Your task to perform on an android device: Show the shopping cart on newegg. Add "logitech g pro" to the cart on newegg Image 0: 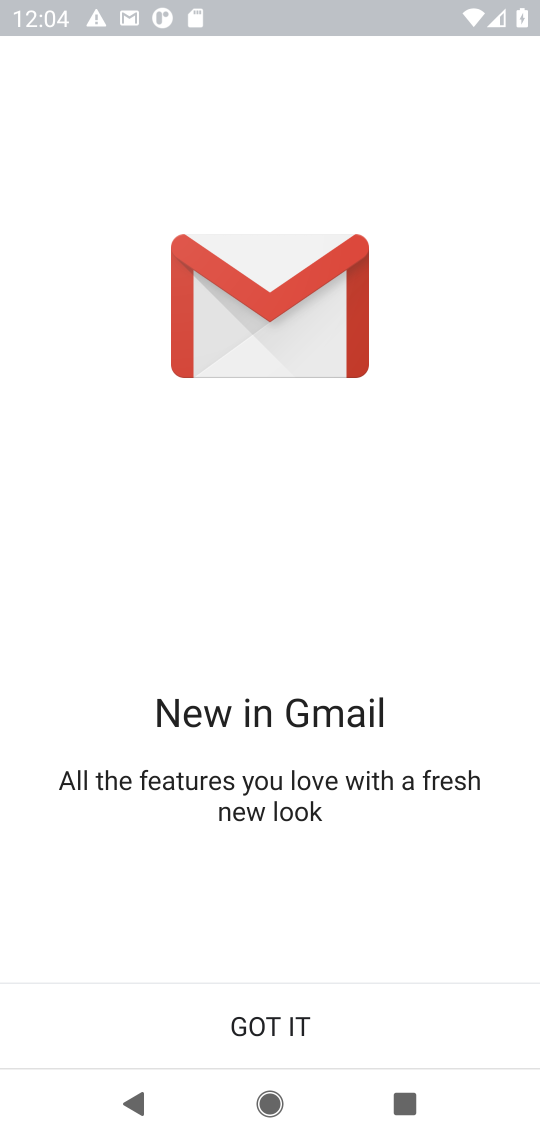
Step 0: press home button
Your task to perform on an android device: Show the shopping cart on newegg. Add "logitech g pro" to the cart on newegg Image 1: 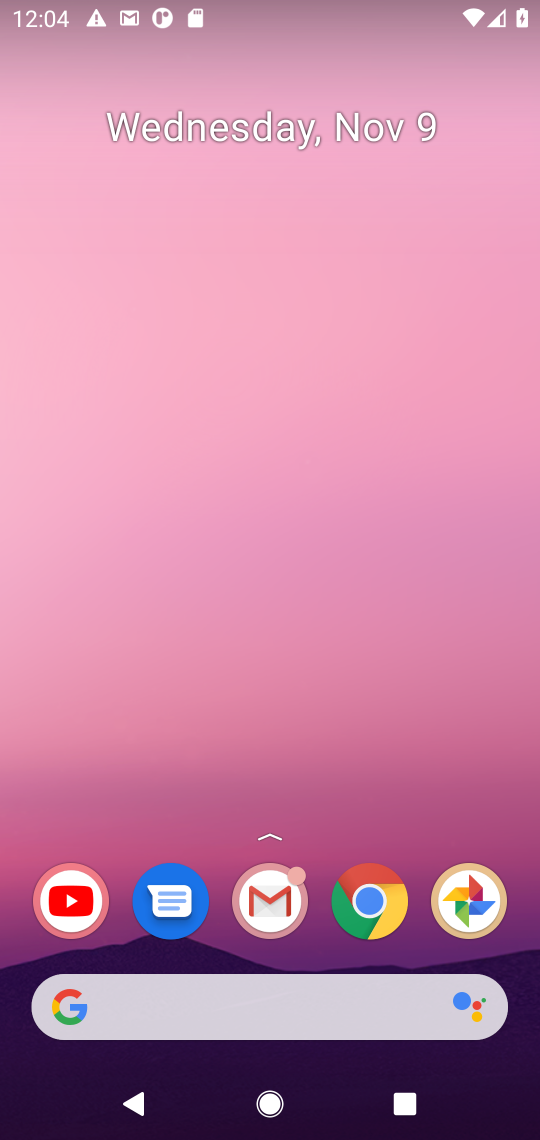
Step 1: click (378, 891)
Your task to perform on an android device: Show the shopping cart on newegg. Add "logitech g pro" to the cart on newegg Image 2: 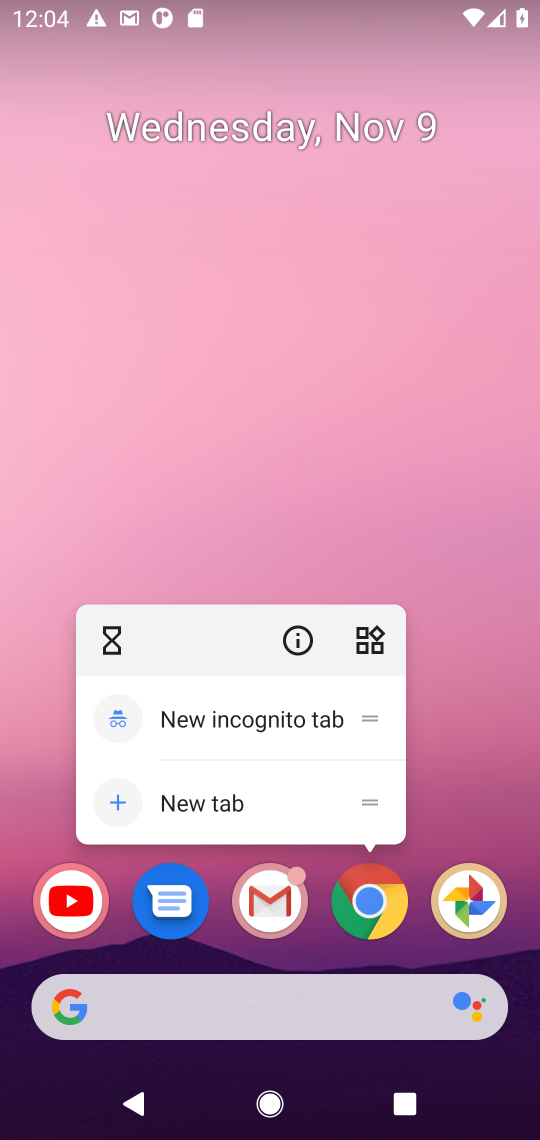
Step 2: click (358, 876)
Your task to perform on an android device: Show the shopping cart on newegg. Add "logitech g pro" to the cart on newegg Image 3: 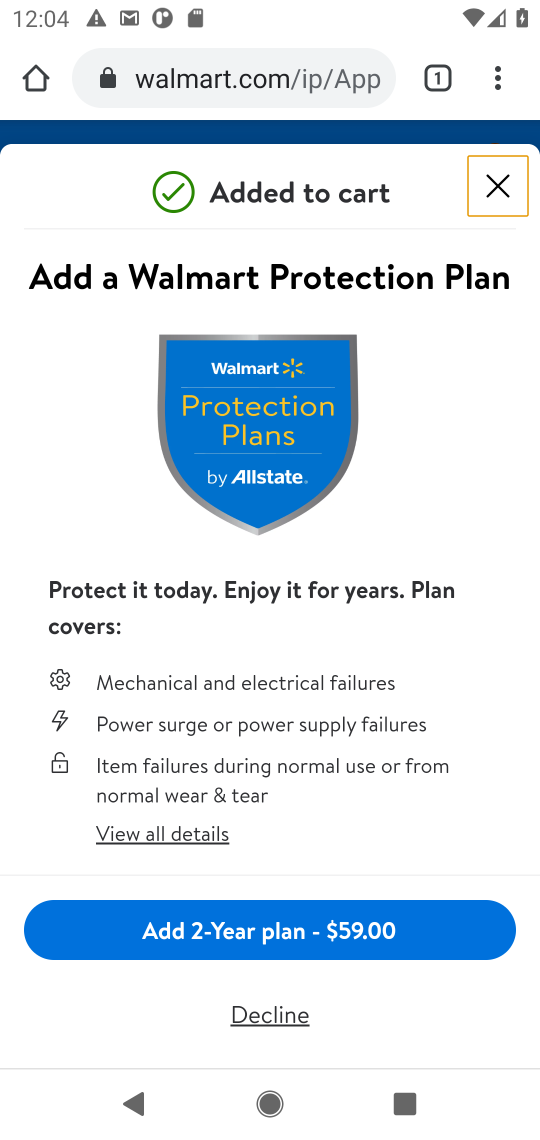
Step 3: click (249, 80)
Your task to perform on an android device: Show the shopping cart on newegg. Add "logitech g pro" to the cart on newegg Image 4: 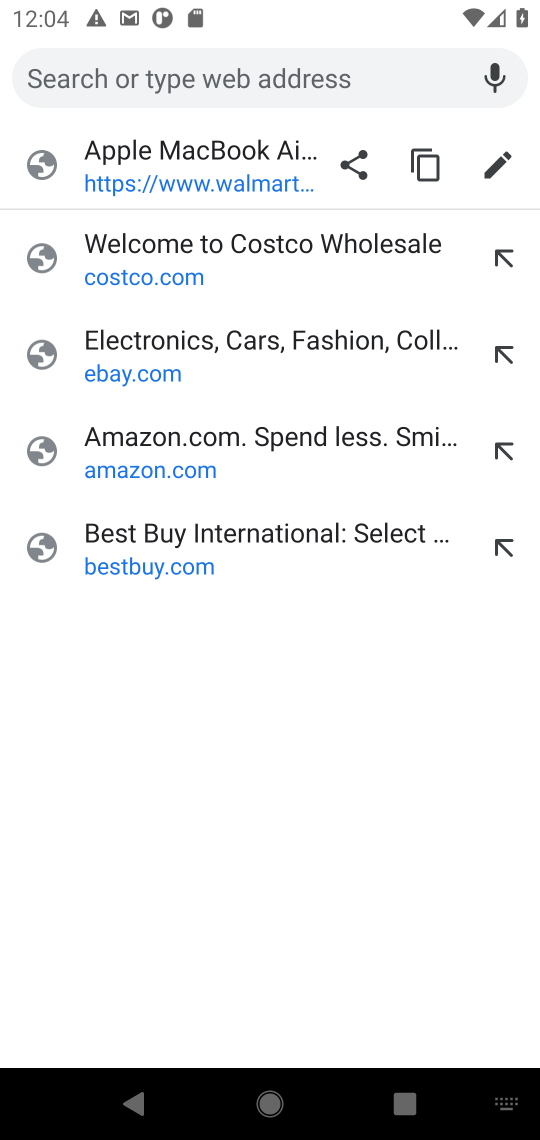
Step 4: type "newegg"
Your task to perform on an android device: Show the shopping cart on newegg. Add "logitech g pro" to the cart on newegg Image 5: 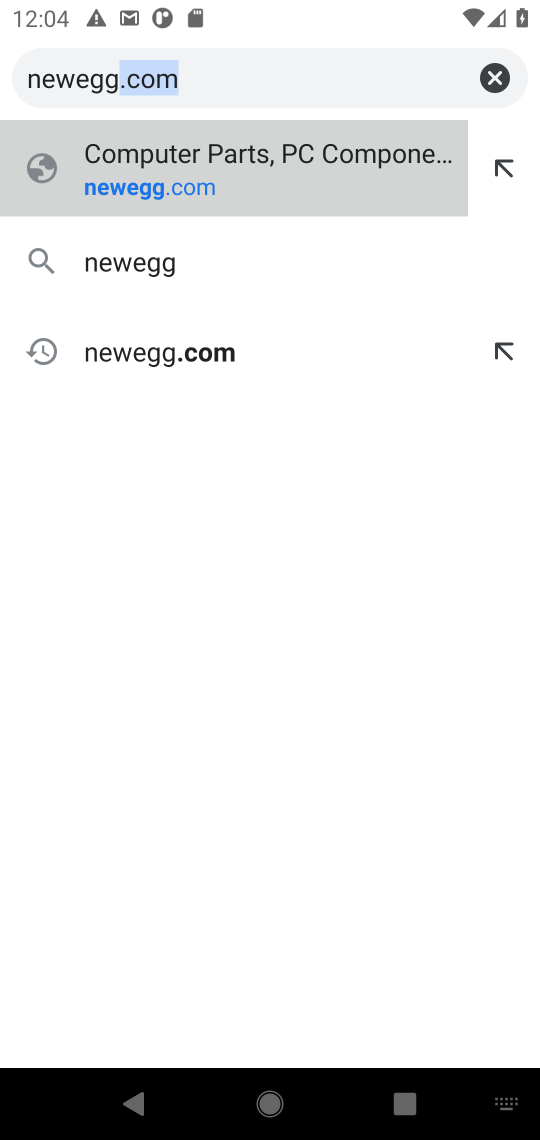
Step 5: click (390, 57)
Your task to perform on an android device: Show the shopping cart on newegg. Add "logitech g pro" to the cart on newegg Image 6: 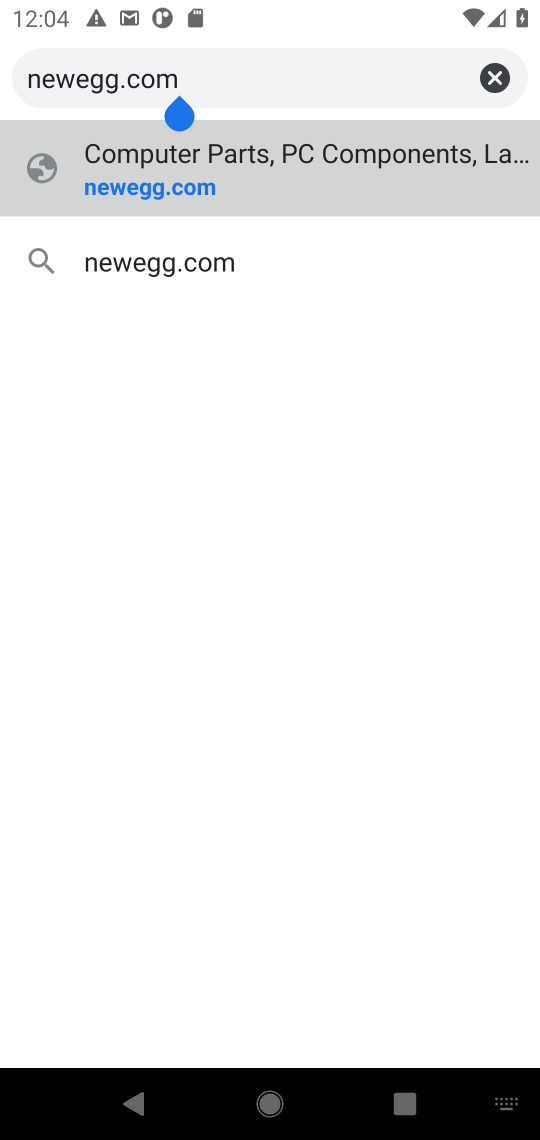
Step 6: click (248, 255)
Your task to perform on an android device: Show the shopping cart on newegg. Add "logitech g pro" to the cart on newegg Image 7: 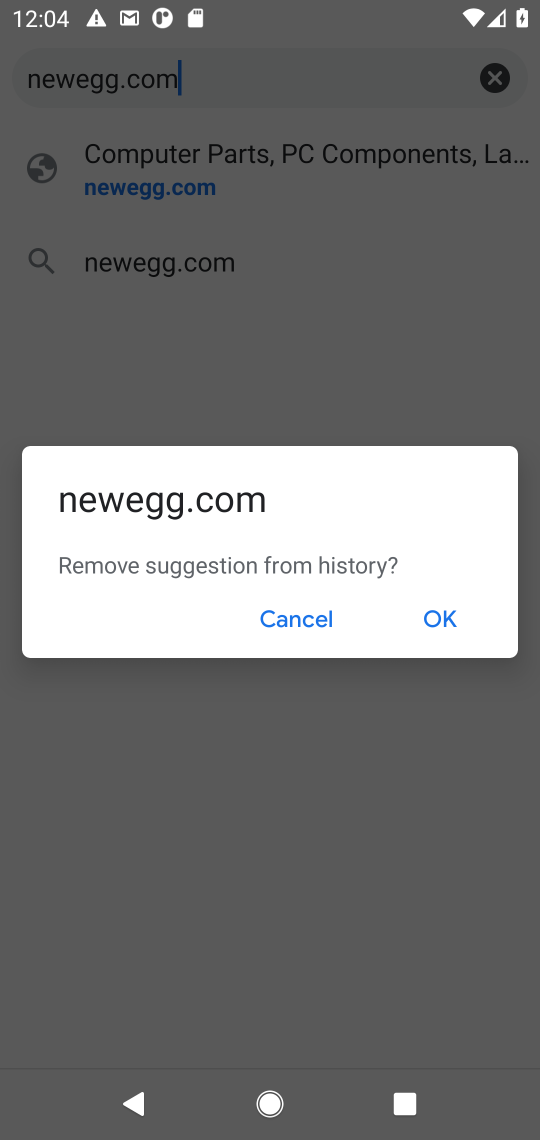
Step 7: click (449, 612)
Your task to perform on an android device: Show the shopping cart on newegg. Add "logitech g pro" to the cart on newegg Image 8: 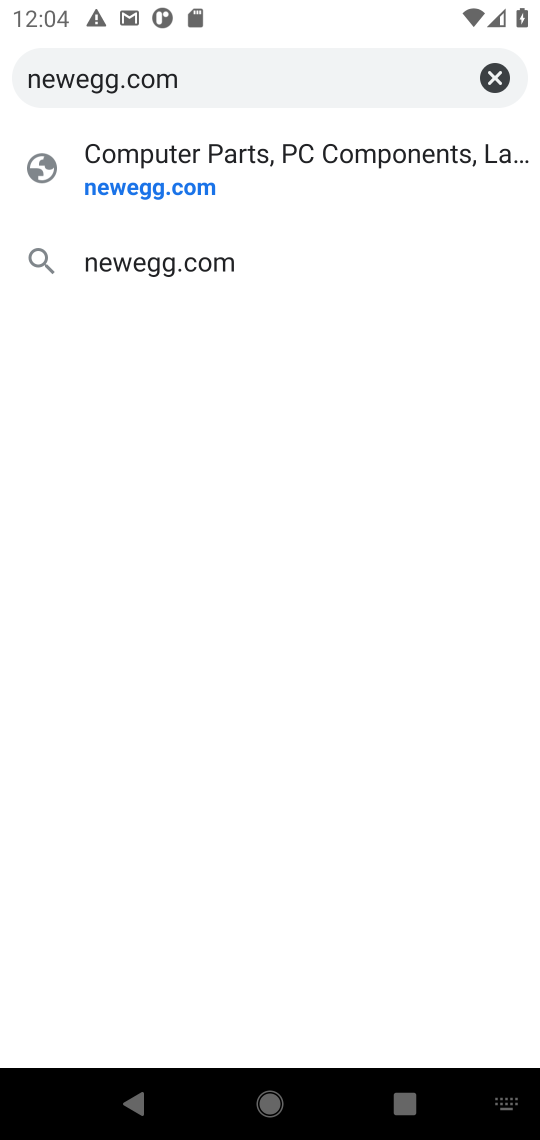
Step 8: click (358, 78)
Your task to perform on an android device: Show the shopping cart on newegg. Add "logitech g pro" to the cart on newegg Image 9: 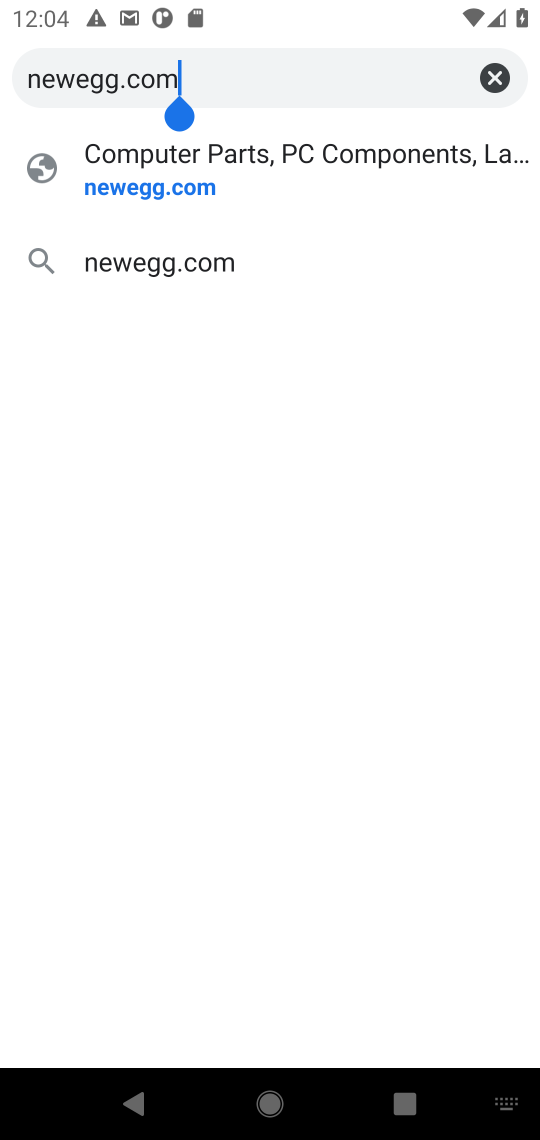
Step 9: click (181, 250)
Your task to perform on an android device: Show the shopping cart on newegg. Add "logitech g pro" to the cart on newegg Image 10: 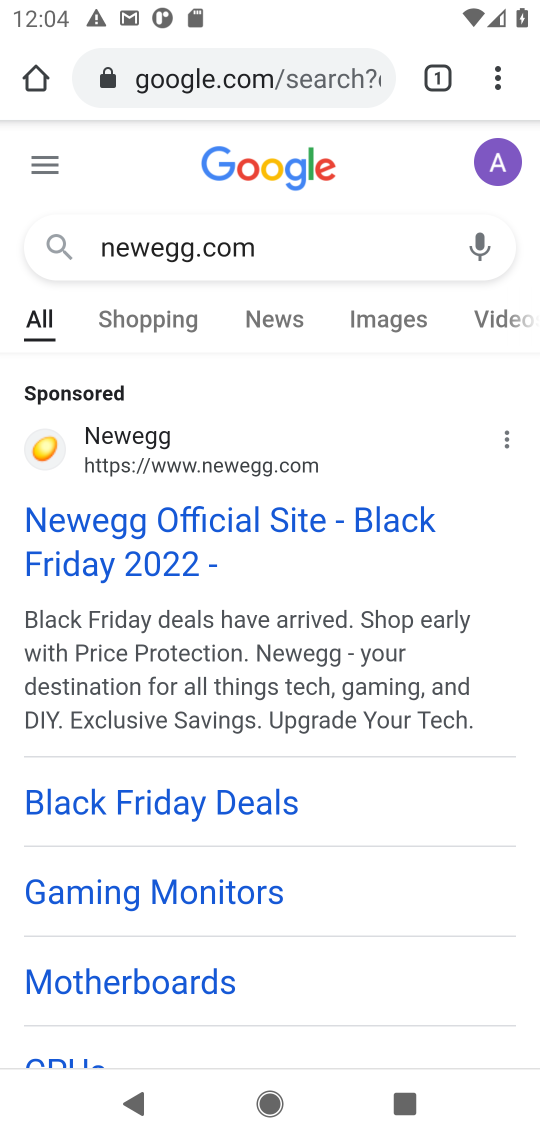
Step 10: click (224, 472)
Your task to perform on an android device: Show the shopping cart on newegg. Add "logitech g pro" to the cart on newegg Image 11: 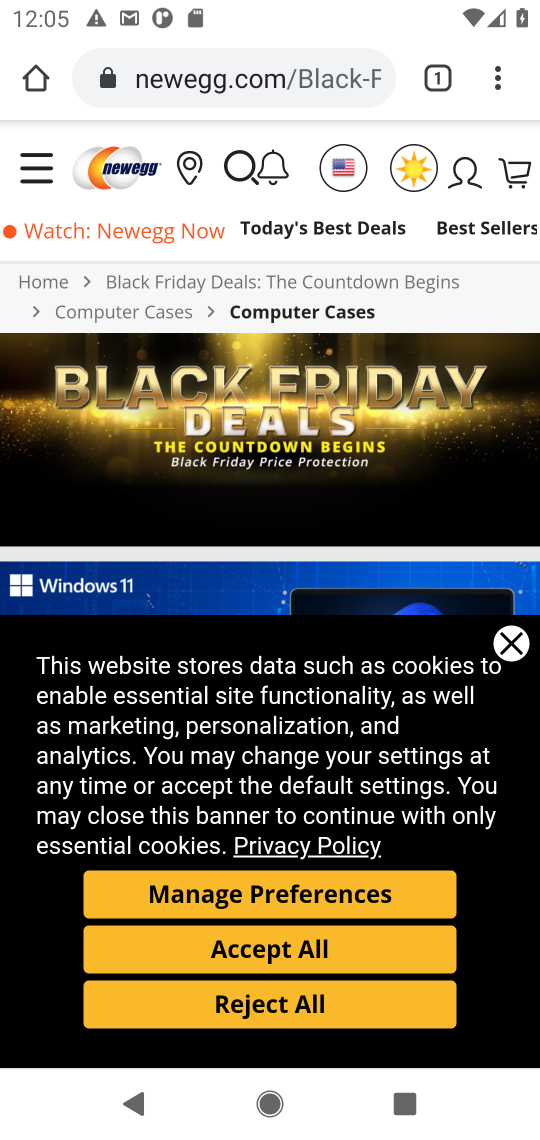
Step 11: click (234, 155)
Your task to perform on an android device: Show the shopping cart on newegg. Add "logitech g pro" to the cart on newegg Image 12: 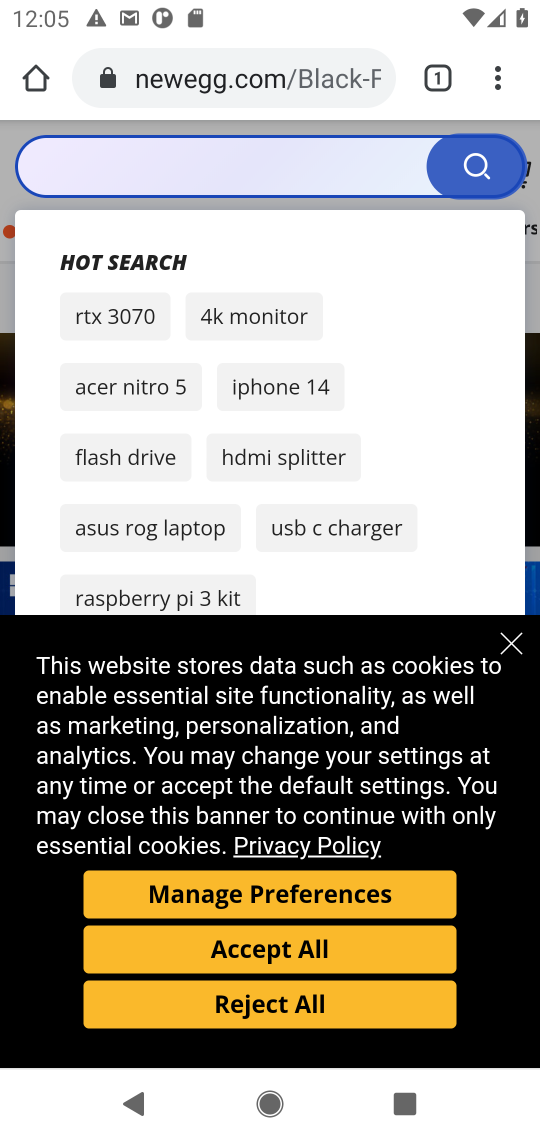
Step 12: click (203, 168)
Your task to perform on an android device: Show the shopping cart on newegg. Add "logitech g pro" to the cart on newegg Image 13: 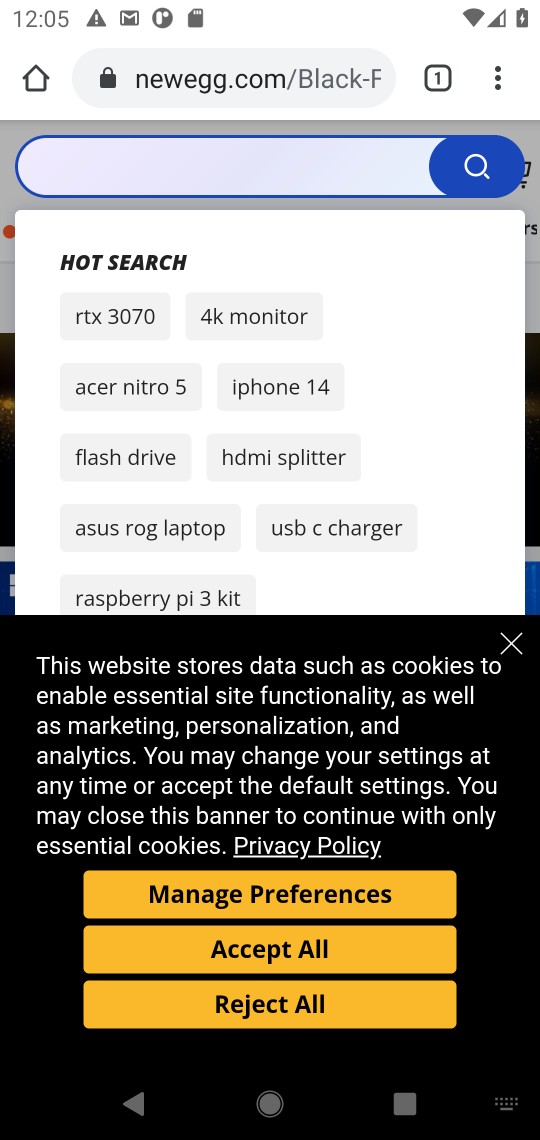
Step 13: type "logitech g pro"
Your task to perform on an android device: Show the shopping cart on newegg. Add "logitech g pro" to the cart on newegg Image 14: 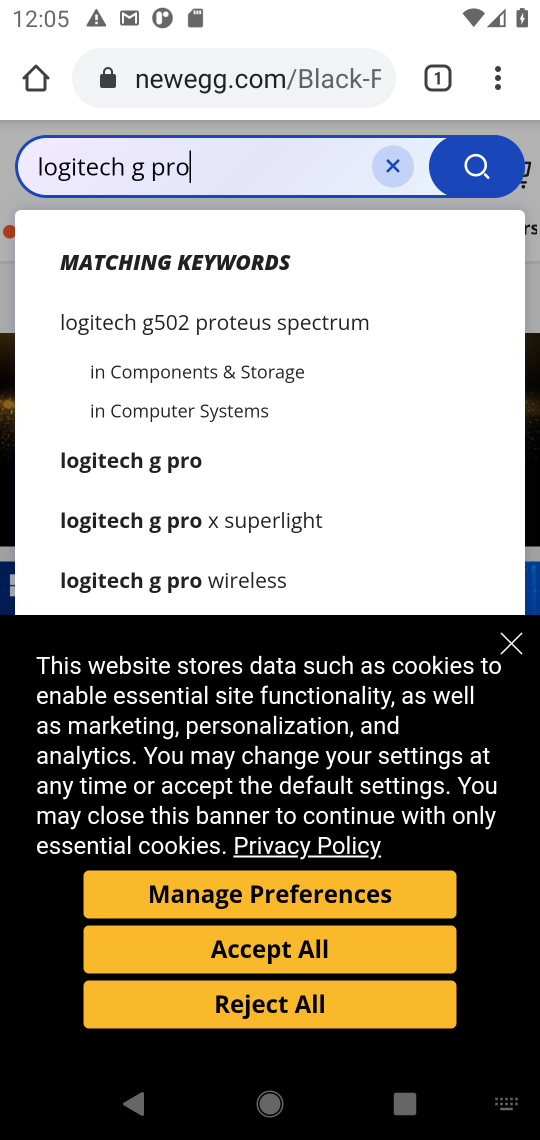
Step 14: click (171, 455)
Your task to perform on an android device: Show the shopping cart on newegg. Add "logitech g pro" to the cart on newegg Image 15: 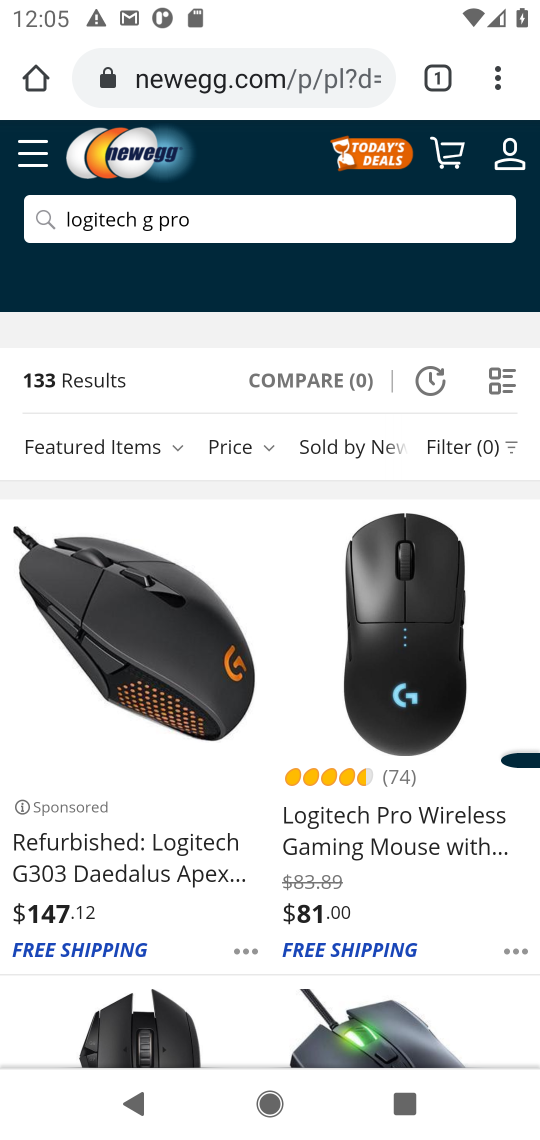
Step 15: drag from (490, 854) to (531, 474)
Your task to perform on an android device: Show the shopping cart on newegg. Add "logitech g pro" to the cart on newegg Image 16: 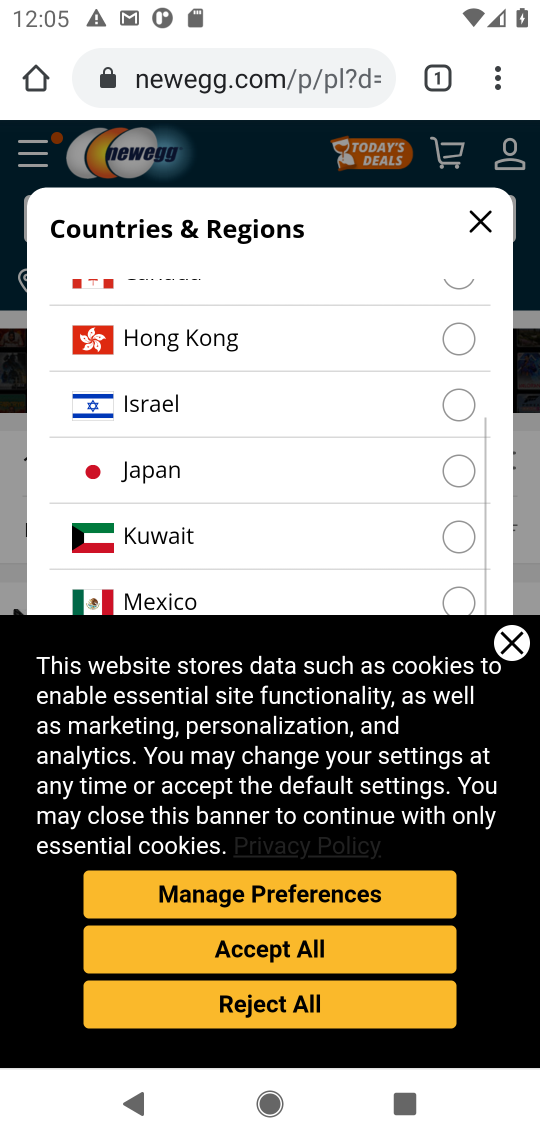
Step 16: click (335, 947)
Your task to perform on an android device: Show the shopping cart on newegg. Add "logitech g pro" to the cart on newegg Image 17: 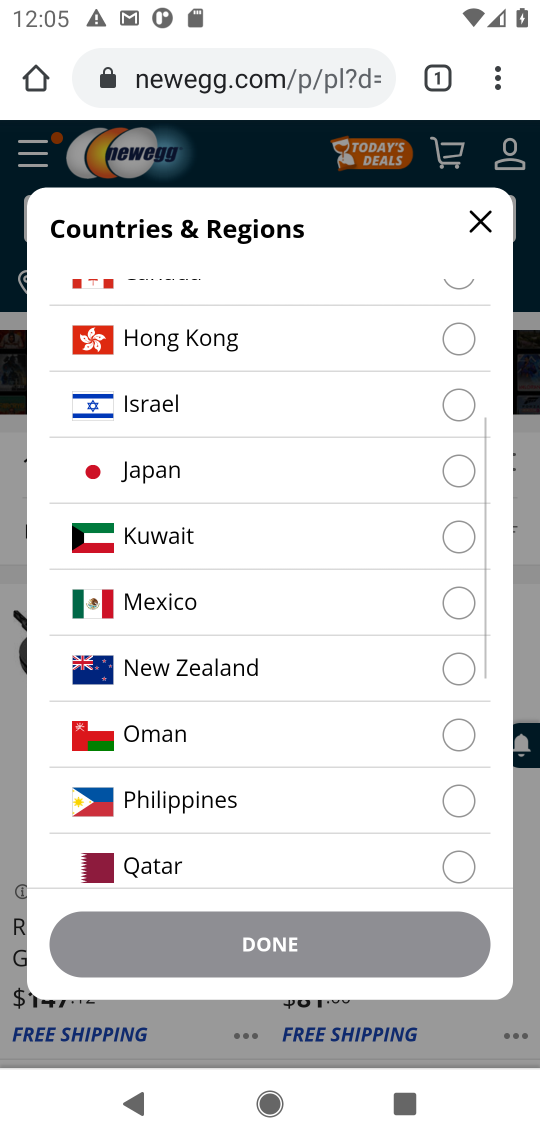
Step 17: click (462, 280)
Your task to perform on an android device: Show the shopping cart on newegg. Add "logitech g pro" to the cart on newegg Image 18: 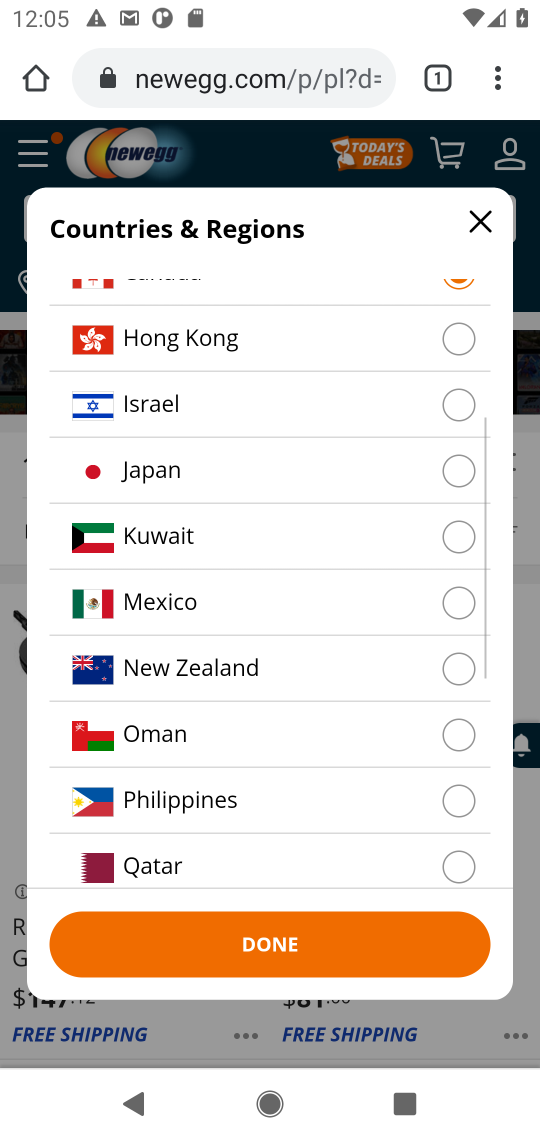
Step 18: drag from (446, 313) to (374, 596)
Your task to perform on an android device: Show the shopping cart on newegg. Add "logitech g pro" to the cart on newegg Image 19: 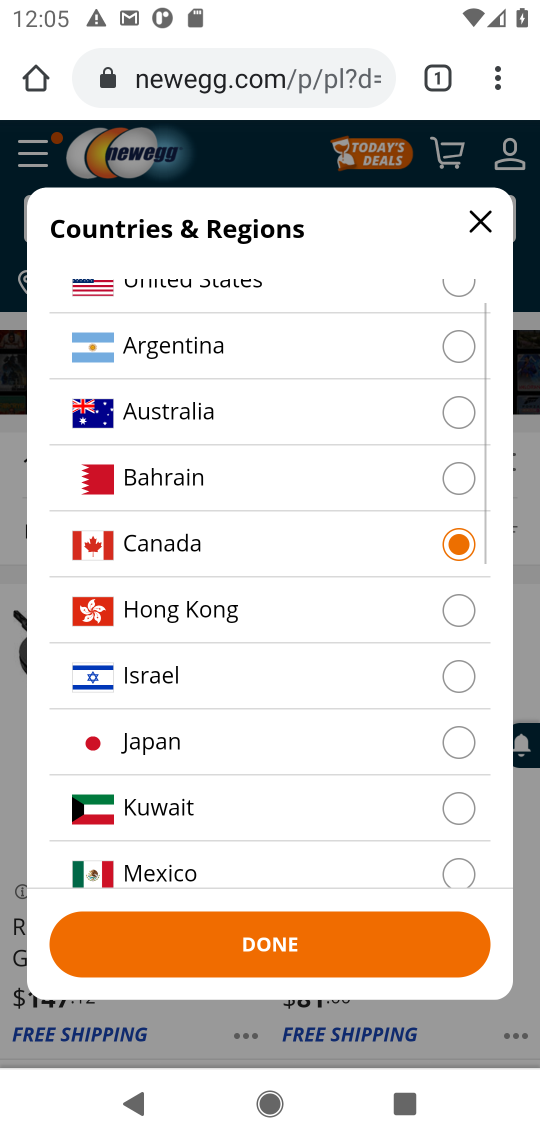
Step 19: drag from (420, 434) to (442, 819)
Your task to perform on an android device: Show the shopping cart on newegg. Add "logitech g pro" to the cart on newegg Image 20: 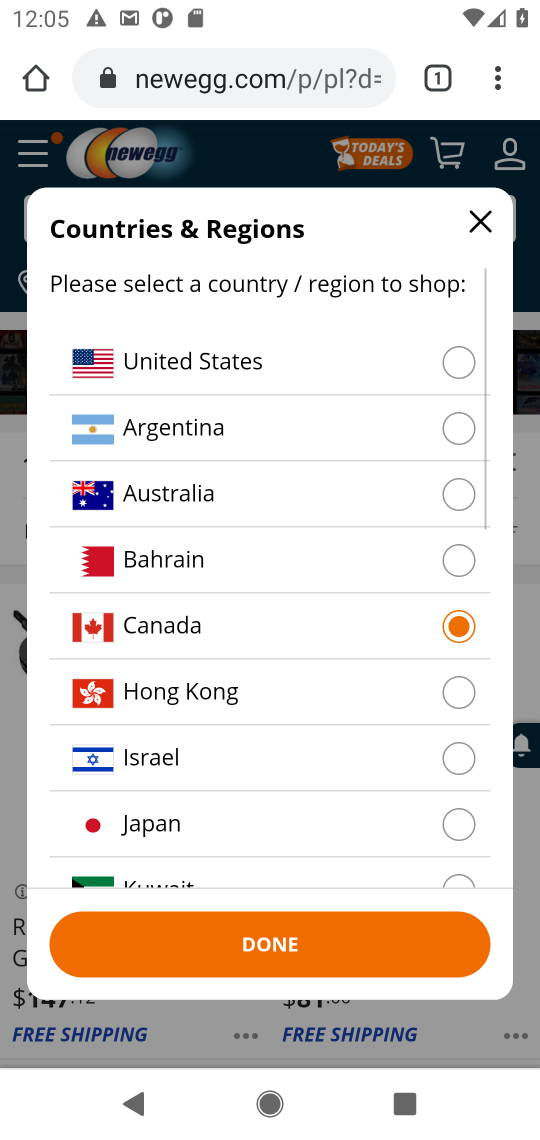
Step 20: click (462, 361)
Your task to perform on an android device: Show the shopping cart on newegg. Add "logitech g pro" to the cart on newegg Image 21: 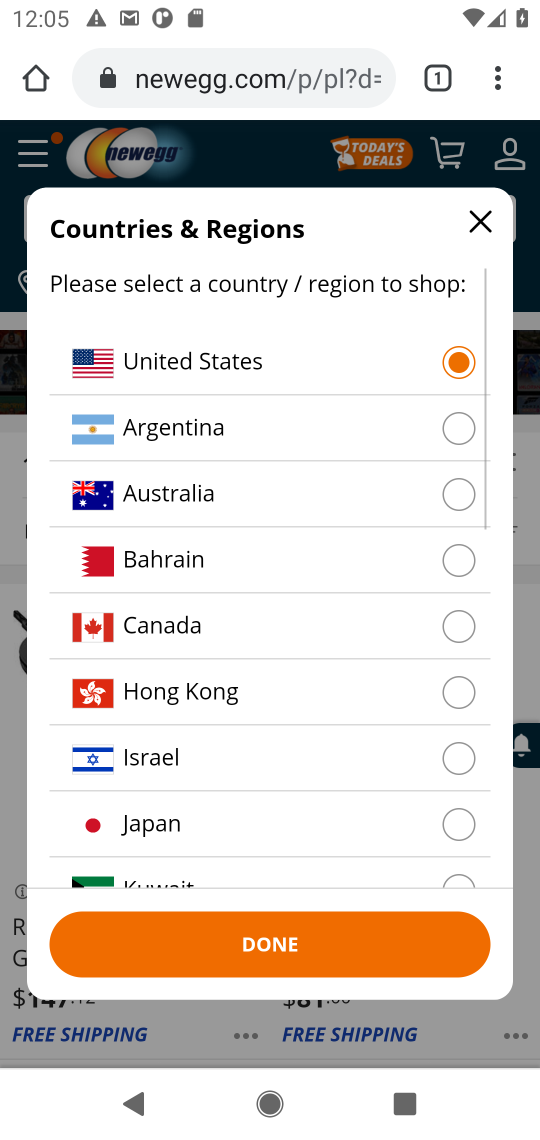
Step 21: click (403, 959)
Your task to perform on an android device: Show the shopping cart on newegg. Add "logitech g pro" to the cart on newegg Image 22: 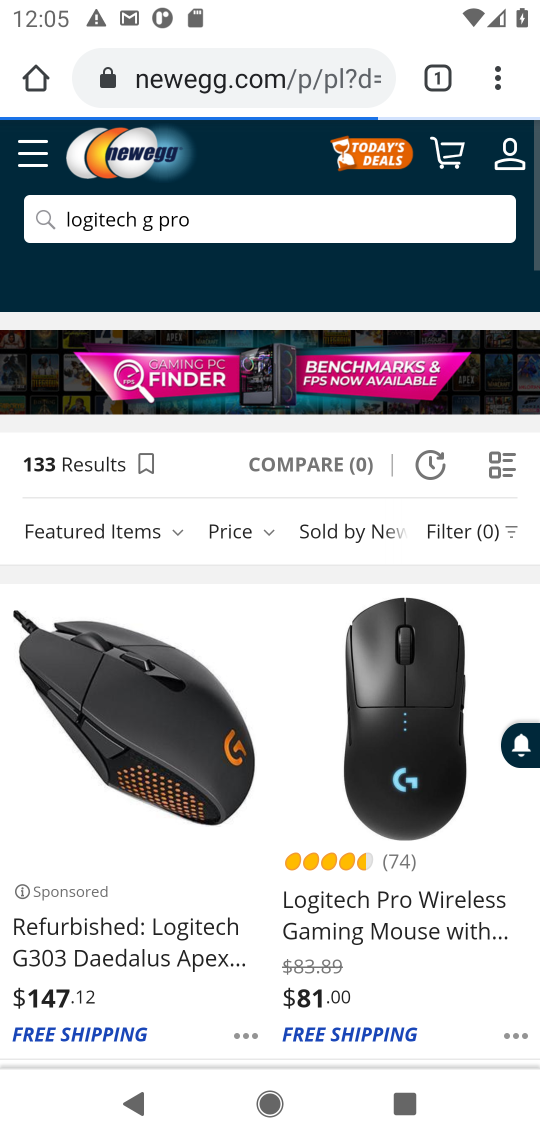
Step 22: drag from (374, 932) to (392, 486)
Your task to perform on an android device: Show the shopping cart on newegg. Add "logitech g pro" to the cart on newegg Image 23: 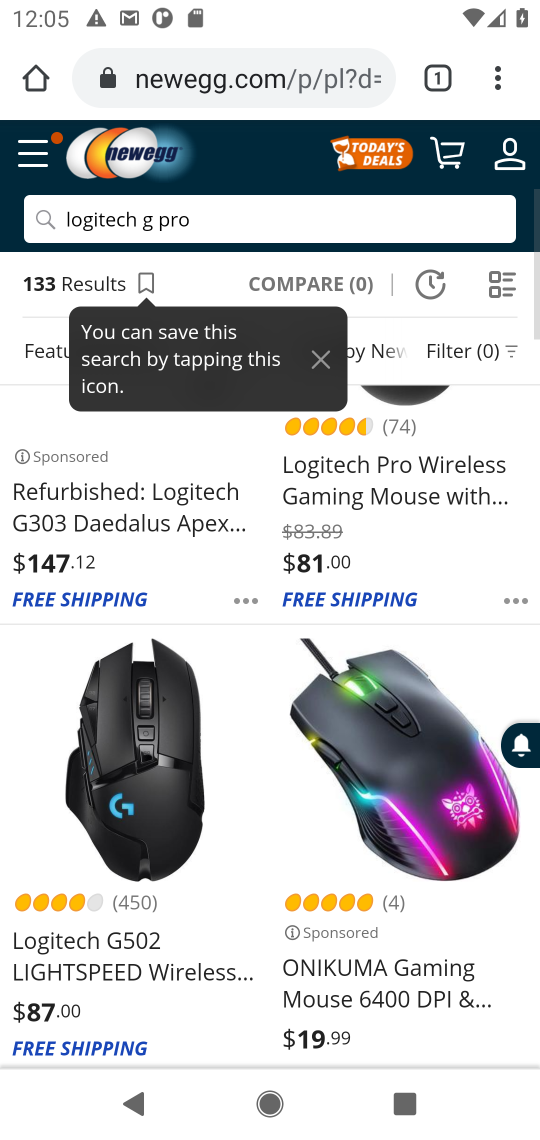
Step 23: drag from (445, 984) to (488, 570)
Your task to perform on an android device: Show the shopping cart on newegg. Add "logitech g pro" to the cart on newegg Image 24: 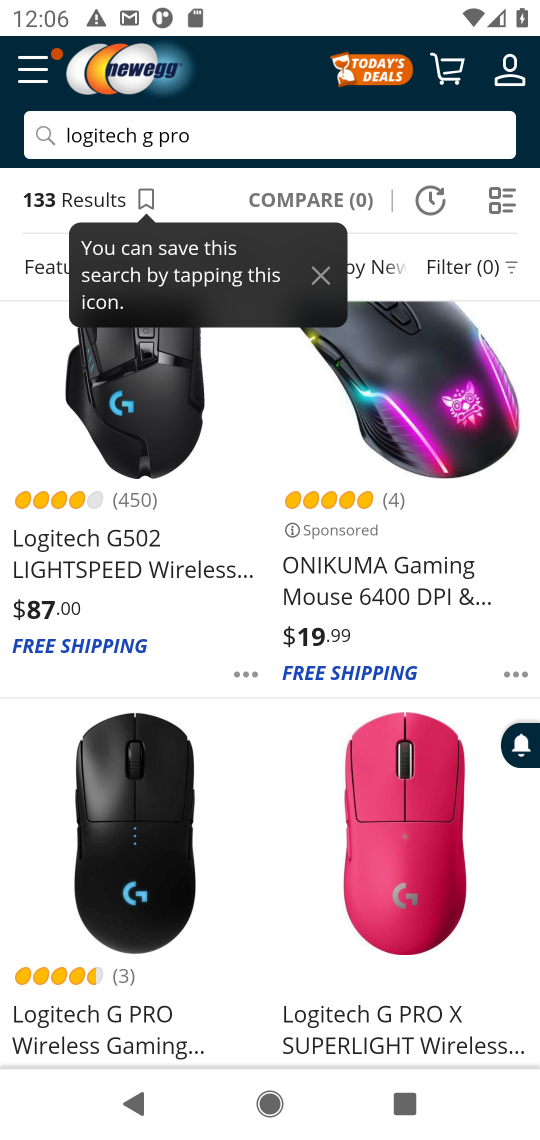
Step 24: click (150, 788)
Your task to perform on an android device: Show the shopping cart on newegg. Add "logitech g pro" to the cart on newegg Image 25: 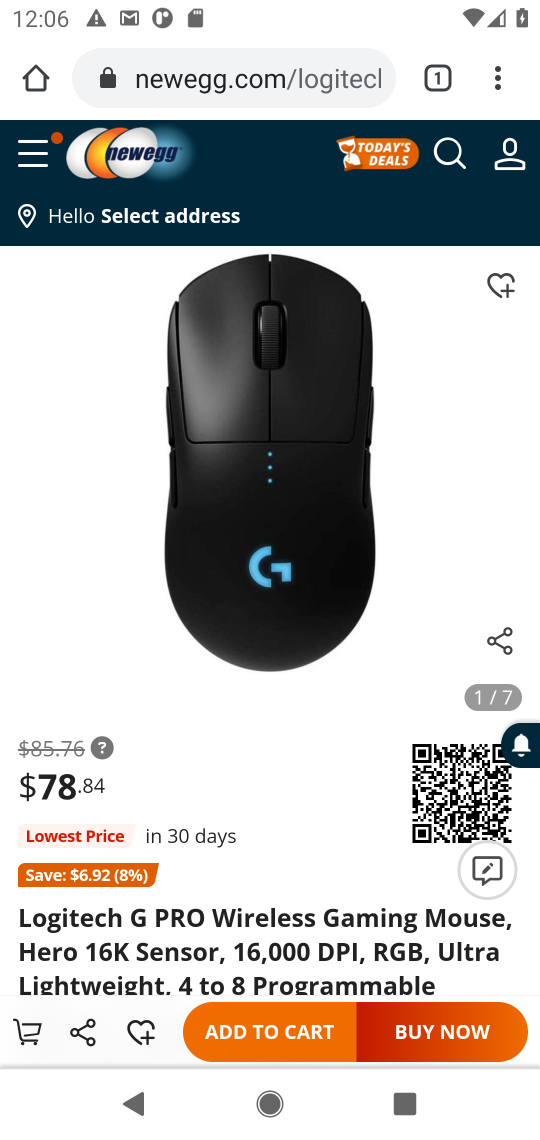
Step 25: click (254, 1025)
Your task to perform on an android device: Show the shopping cart on newegg. Add "logitech g pro" to the cart on newegg Image 26: 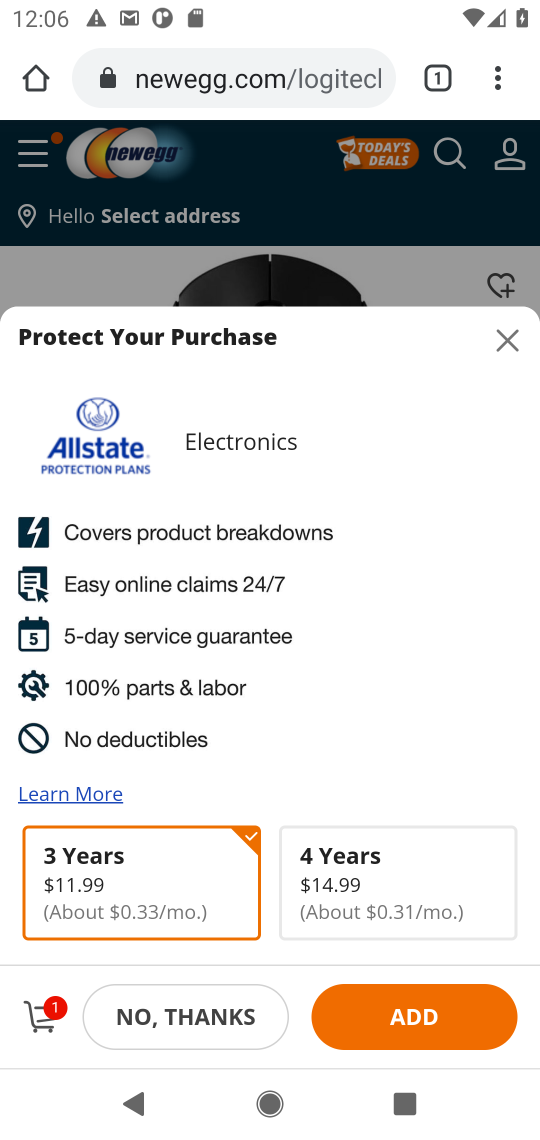
Step 26: task complete